Your task to perform on an android device: check out phone information Image 0: 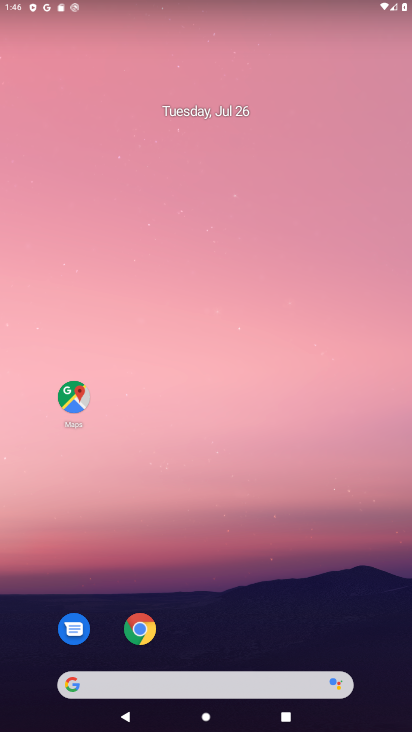
Step 0: drag from (294, 594) to (218, 6)
Your task to perform on an android device: check out phone information Image 1: 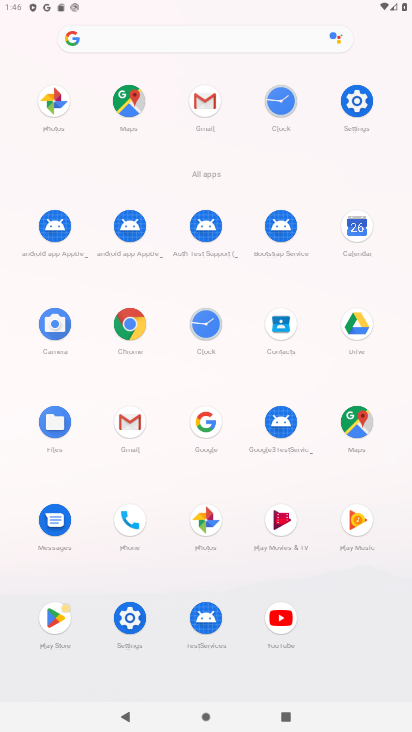
Step 1: click (124, 622)
Your task to perform on an android device: check out phone information Image 2: 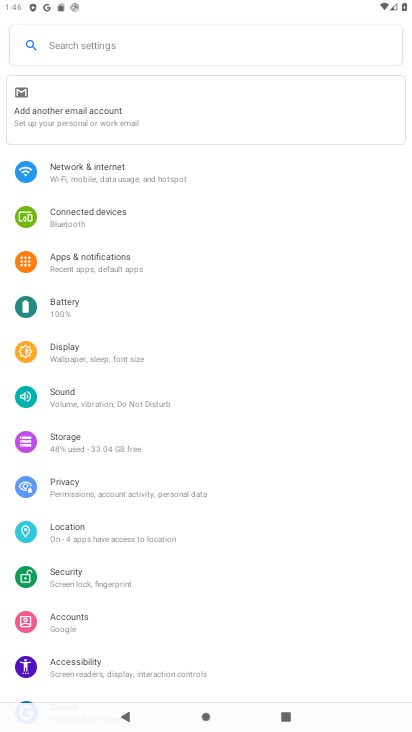
Step 2: drag from (177, 628) to (125, 178)
Your task to perform on an android device: check out phone information Image 3: 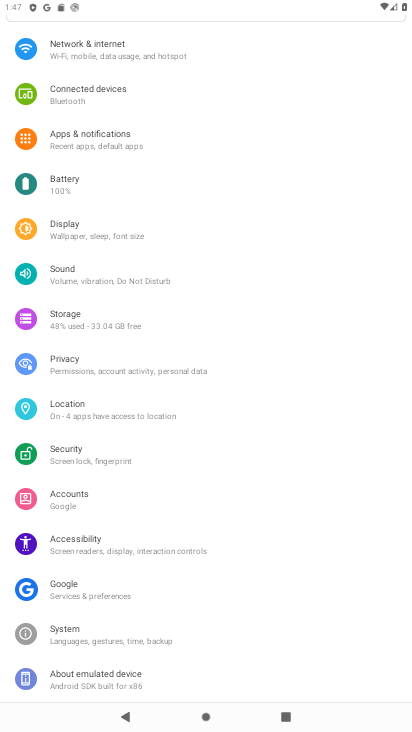
Step 3: click (138, 680)
Your task to perform on an android device: check out phone information Image 4: 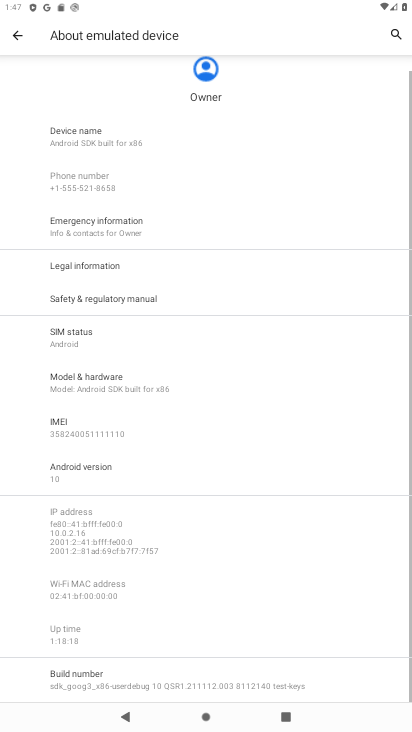
Step 4: task complete